Your task to perform on an android device: Open Google Maps and go to "Timeline" Image 0: 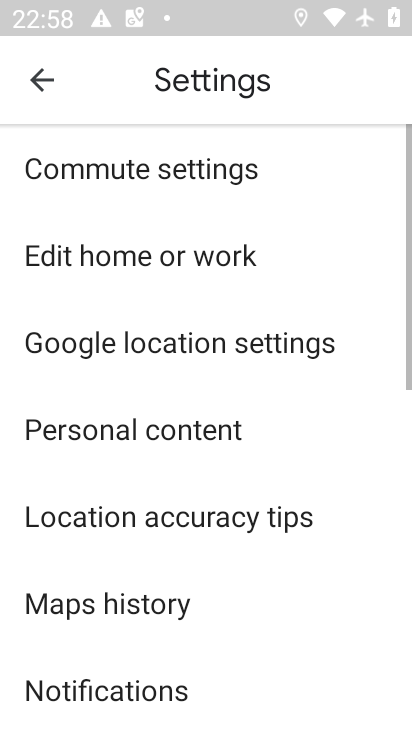
Step 0: press home button
Your task to perform on an android device: Open Google Maps and go to "Timeline" Image 1: 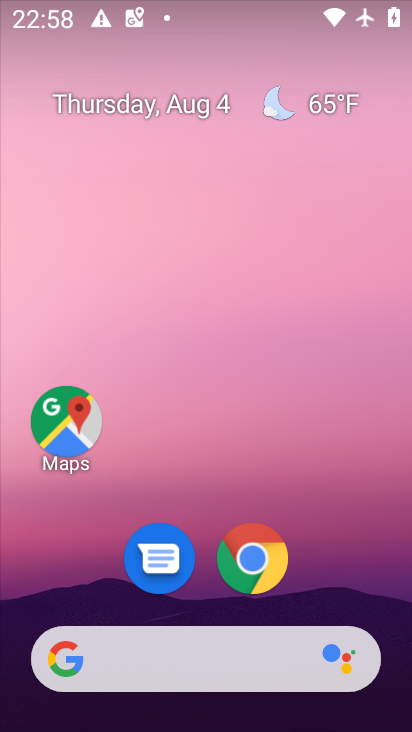
Step 1: drag from (365, 531) to (352, 92)
Your task to perform on an android device: Open Google Maps and go to "Timeline" Image 2: 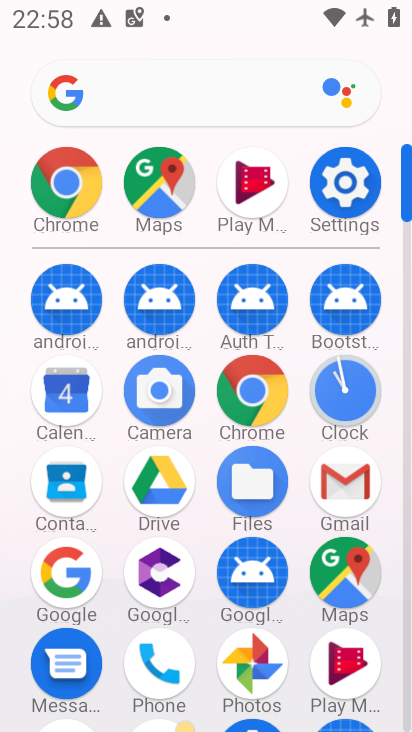
Step 2: click (352, 568)
Your task to perform on an android device: Open Google Maps and go to "Timeline" Image 3: 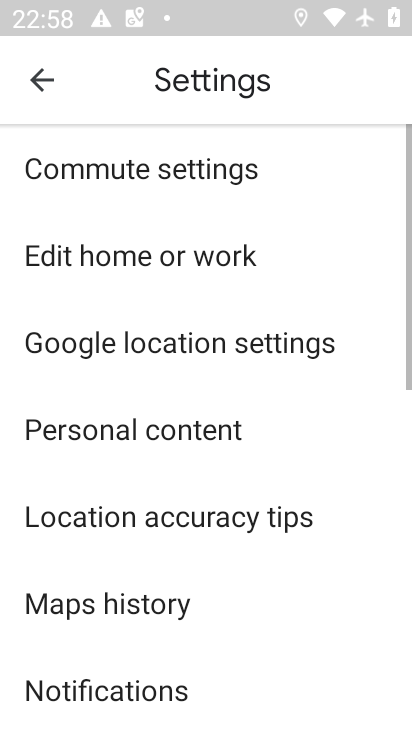
Step 3: click (50, 74)
Your task to perform on an android device: Open Google Maps and go to "Timeline" Image 4: 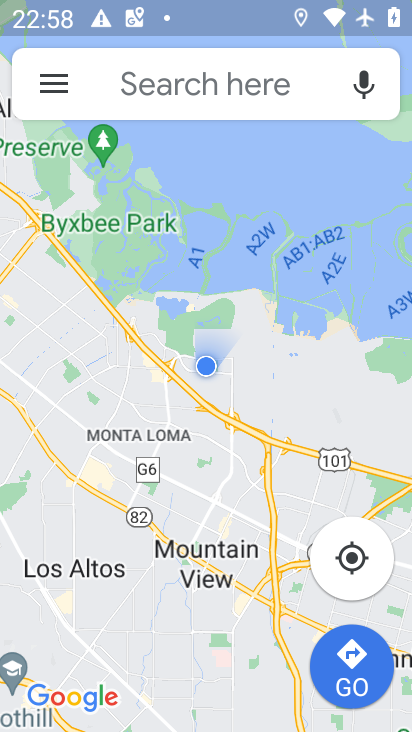
Step 4: click (50, 74)
Your task to perform on an android device: Open Google Maps and go to "Timeline" Image 5: 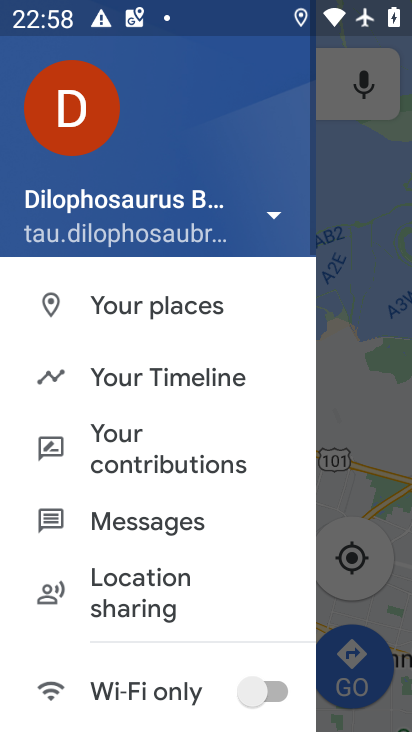
Step 5: click (176, 396)
Your task to perform on an android device: Open Google Maps and go to "Timeline" Image 6: 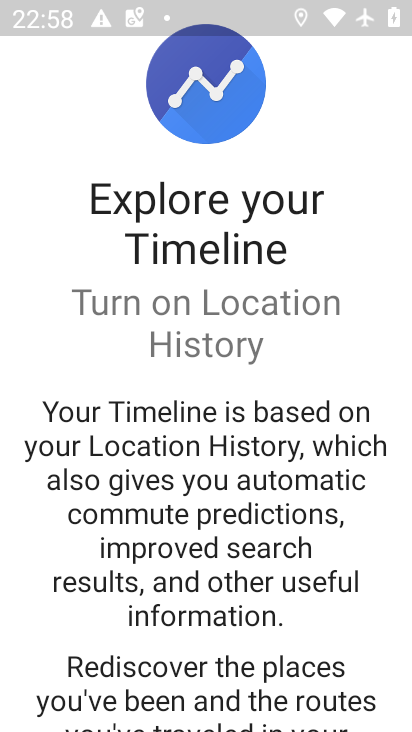
Step 6: drag from (271, 607) to (294, 125)
Your task to perform on an android device: Open Google Maps and go to "Timeline" Image 7: 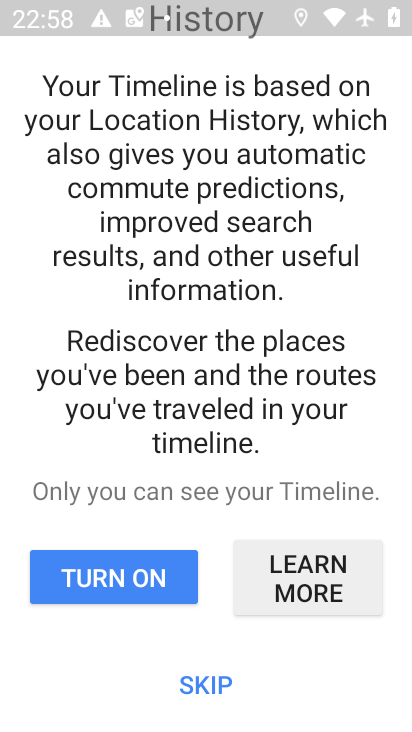
Step 7: click (107, 563)
Your task to perform on an android device: Open Google Maps and go to "Timeline" Image 8: 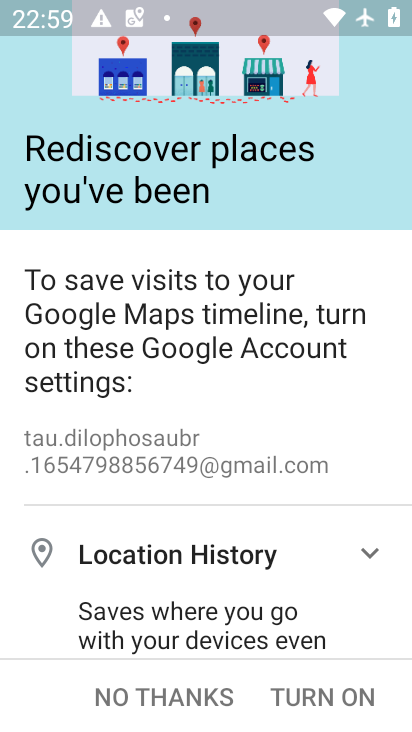
Step 8: click (189, 702)
Your task to perform on an android device: Open Google Maps and go to "Timeline" Image 9: 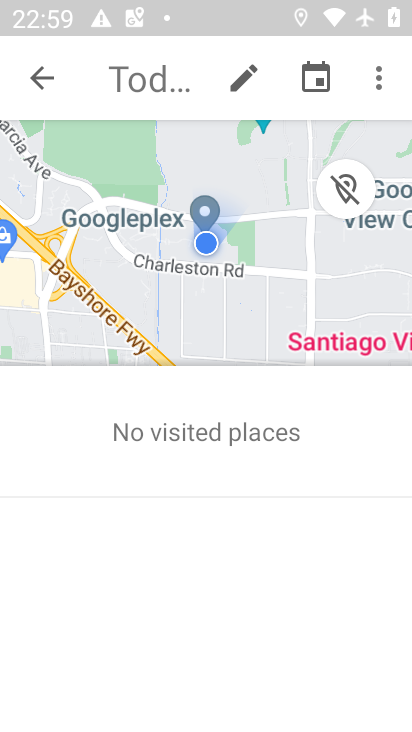
Step 9: task complete